Your task to perform on an android device: turn vacation reply on in the gmail app Image 0: 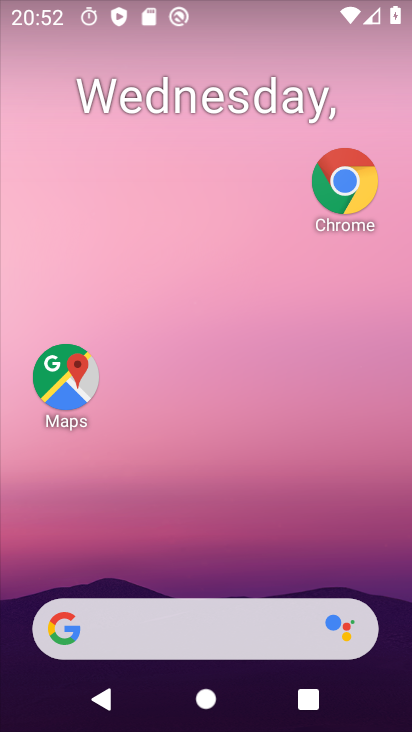
Step 0: click (277, 313)
Your task to perform on an android device: turn vacation reply on in the gmail app Image 1: 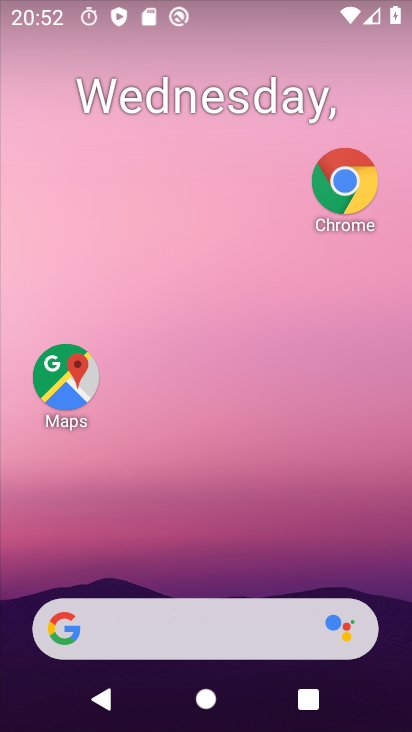
Step 1: drag from (200, 654) to (268, 201)
Your task to perform on an android device: turn vacation reply on in the gmail app Image 2: 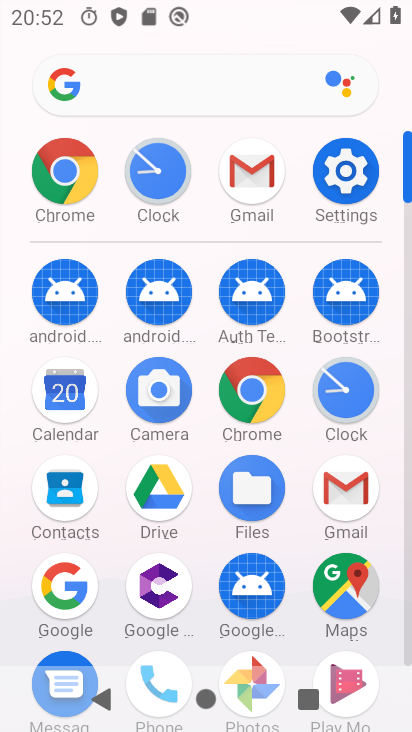
Step 2: click (248, 207)
Your task to perform on an android device: turn vacation reply on in the gmail app Image 3: 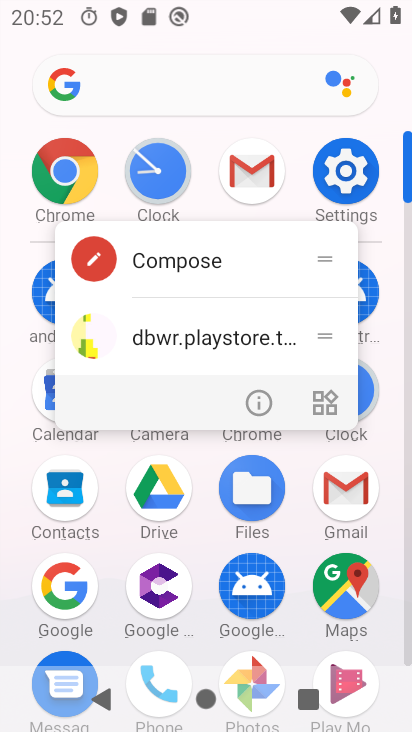
Step 3: click (228, 202)
Your task to perform on an android device: turn vacation reply on in the gmail app Image 4: 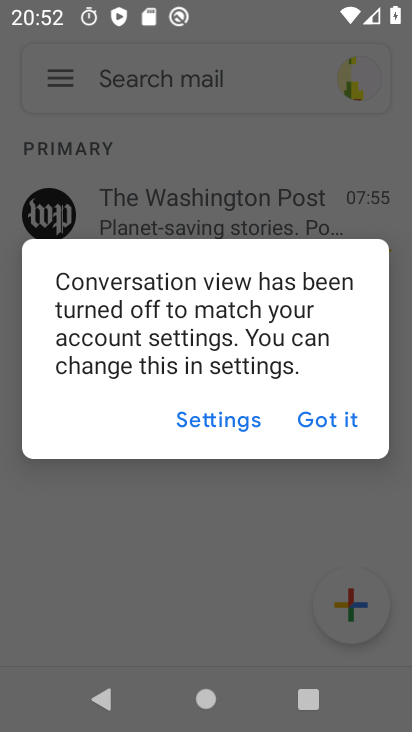
Step 4: click (305, 421)
Your task to perform on an android device: turn vacation reply on in the gmail app Image 5: 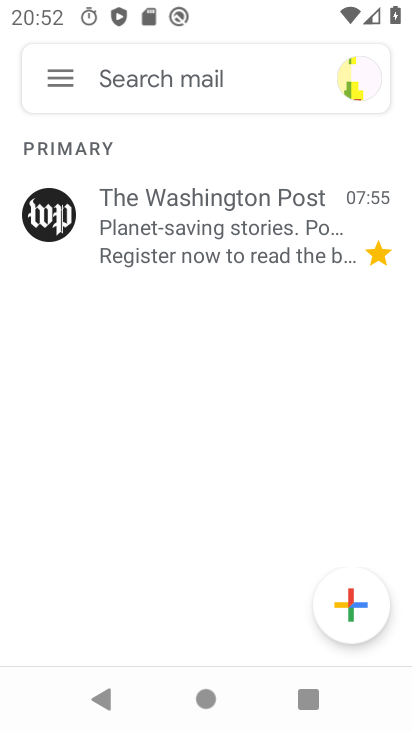
Step 5: click (68, 71)
Your task to perform on an android device: turn vacation reply on in the gmail app Image 6: 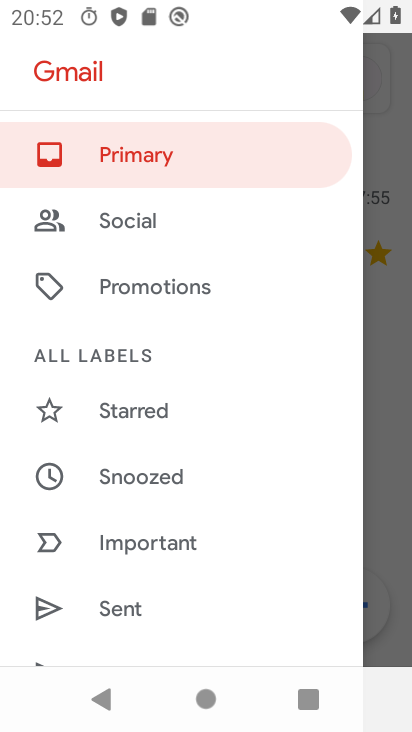
Step 6: drag from (125, 493) to (207, 212)
Your task to perform on an android device: turn vacation reply on in the gmail app Image 7: 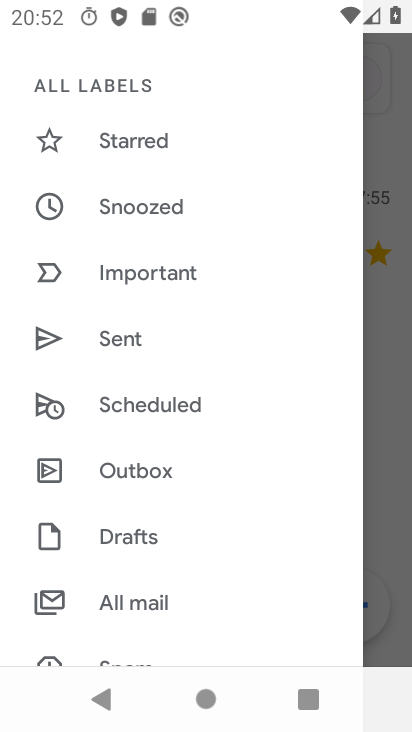
Step 7: drag from (106, 527) to (149, 303)
Your task to perform on an android device: turn vacation reply on in the gmail app Image 8: 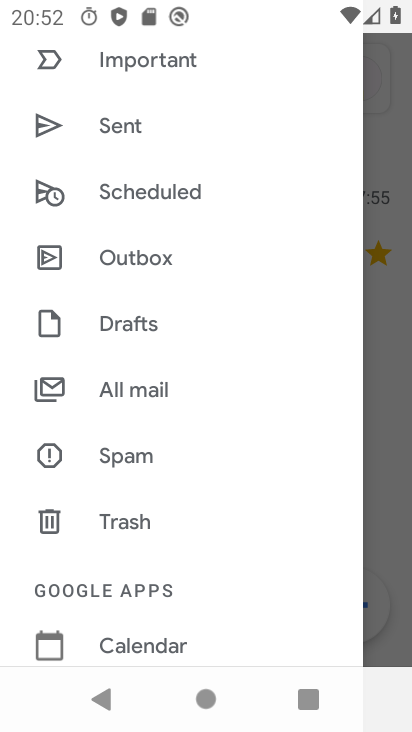
Step 8: drag from (167, 427) to (195, 289)
Your task to perform on an android device: turn vacation reply on in the gmail app Image 9: 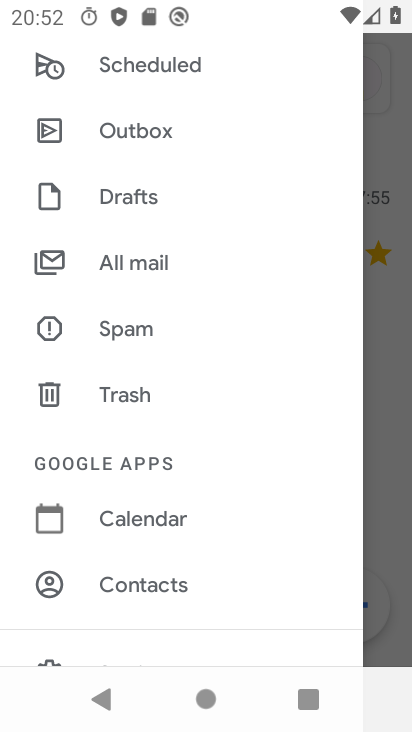
Step 9: drag from (154, 480) to (176, 347)
Your task to perform on an android device: turn vacation reply on in the gmail app Image 10: 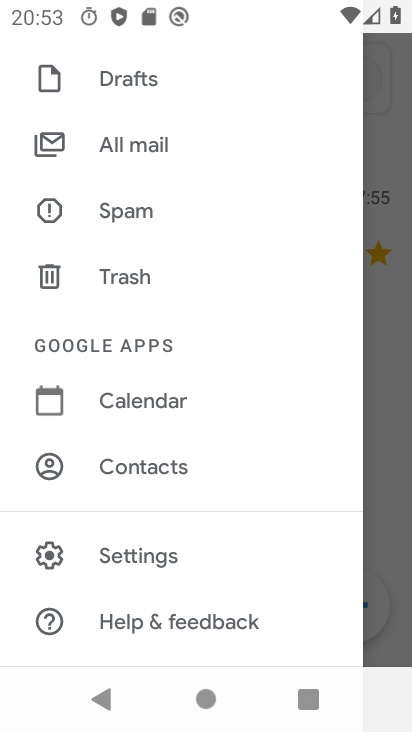
Step 10: click (117, 548)
Your task to perform on an android device: turn vacation reply on in the gmail app Image 11: 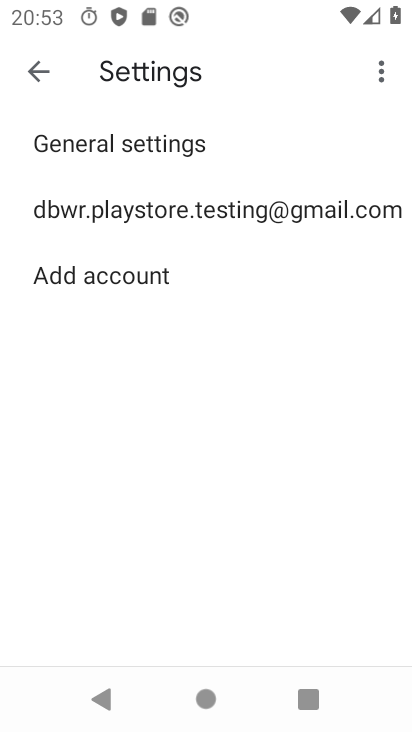
Step 11: click (150, 215)
Your task to perform on an android device: turn vacation reply on in the gmail app Image 12: 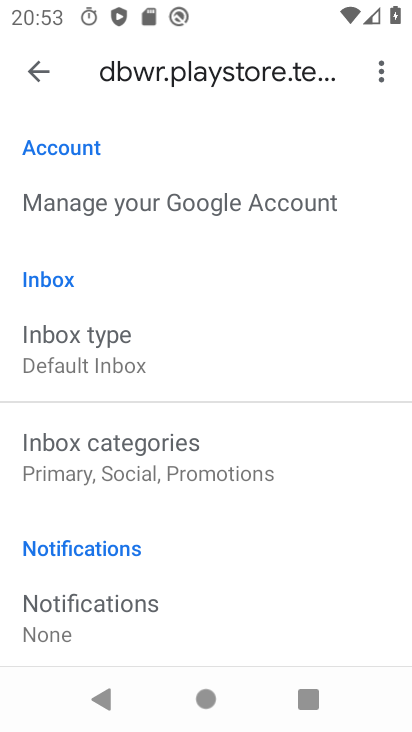
Step 12: drag from (177, 568) to (253, 198)
Your task to perform on an android device: turn vacation reply on in the gmail app Image 13: 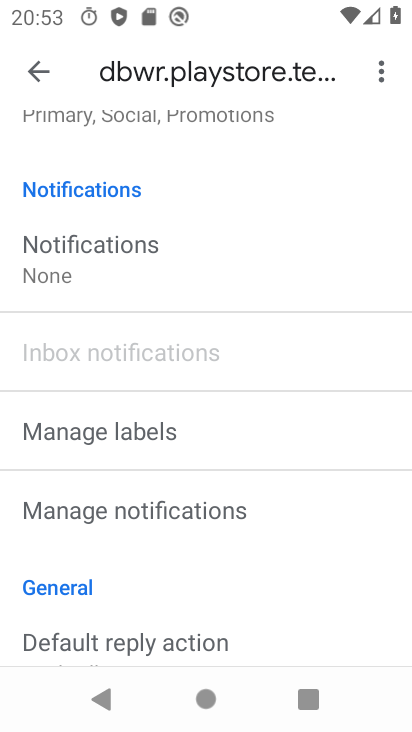
Step 13: drag from (119, 554) to (159, 247)
Your task to perform on an android device: turn vacation reply on in the gmail app Image 14: 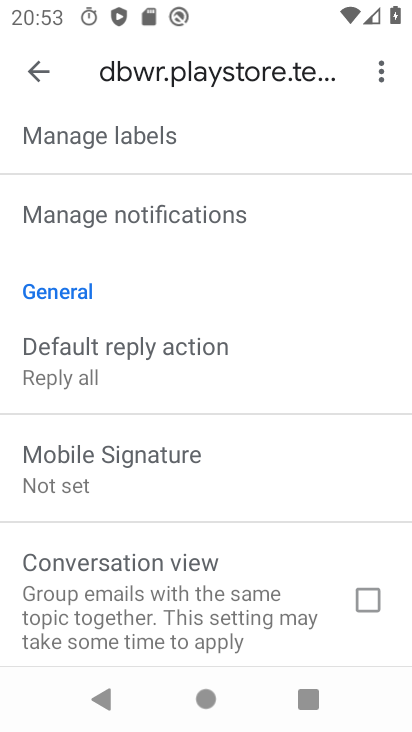
Step 14: drag from (128, 492) to (177, 240)
Your task to perform on an android device: turn vacation reply on in the gmail app Image 15: 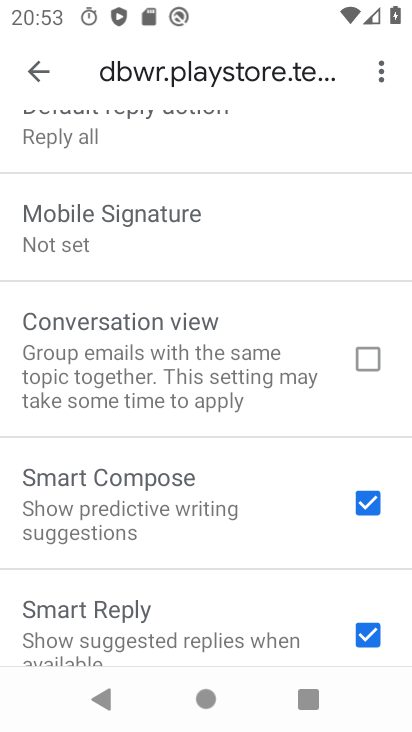
Step 15: drag from (129, 477) to (165, 249)
Your task to perform on an android device: turn vacation reply on in the gmail app Image 16: 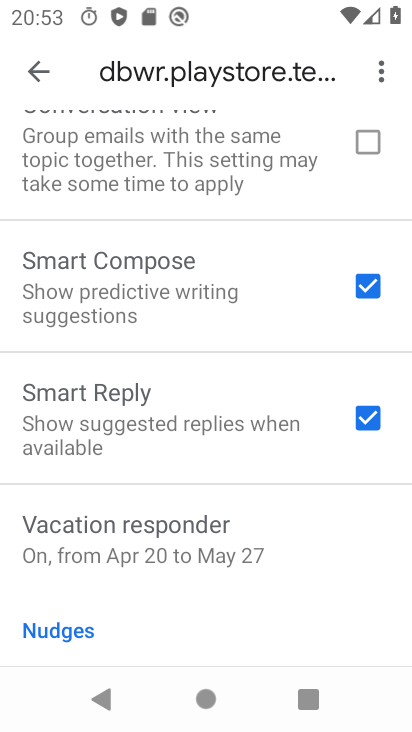
Step 16: click (86, 517)
Your task to perform on an android device: turn vacation reply on in the gmail app Image 17: 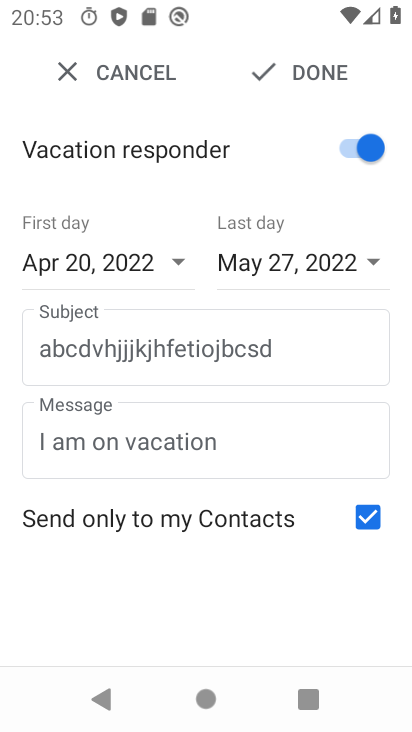
Step 17: task complete